Your task to perform on an android device: Go to ESPN.com Image 0: 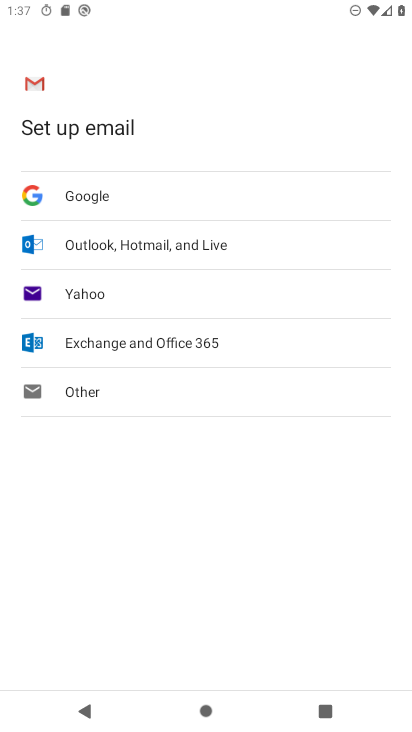
Step 0: press home button
Your task to perform on an android device: Go to ESPN.com Image 1: 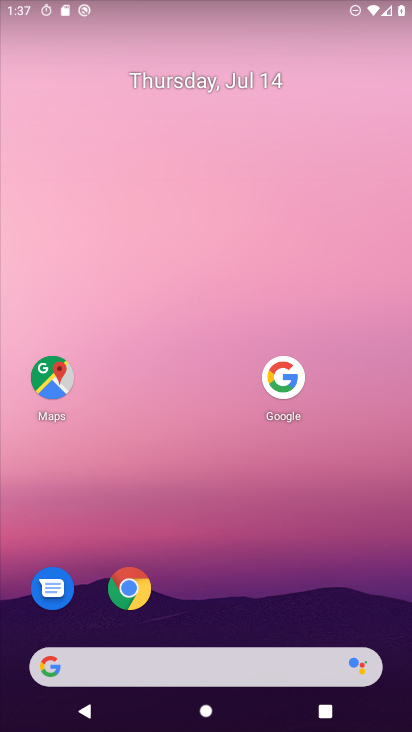
Step 1: click (127, 578)
Your task to perform on an android device: Go to ESPN.com Image 2: 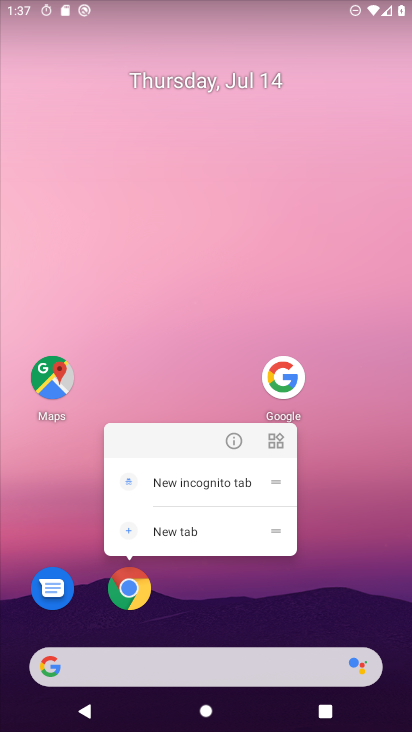
Step 2: click (127, 579)
Your task to perform on an android device: Go to ESPN.com Image 3: 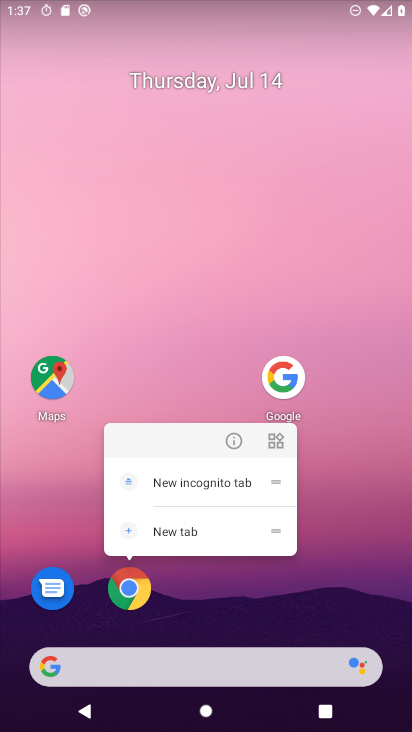
Step 3: click (130, 591)
Your task to perform on an android device: Go to ESPN.com Image 4: 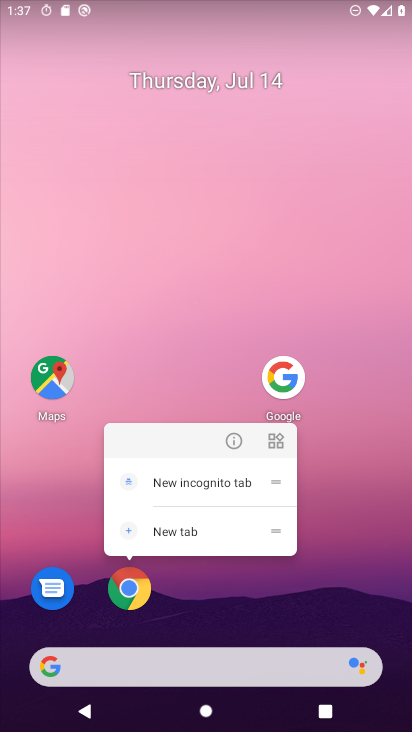
Step 4: click (131, 584)
Your task to perform on an android device: Go to ESPN.com Image 5: 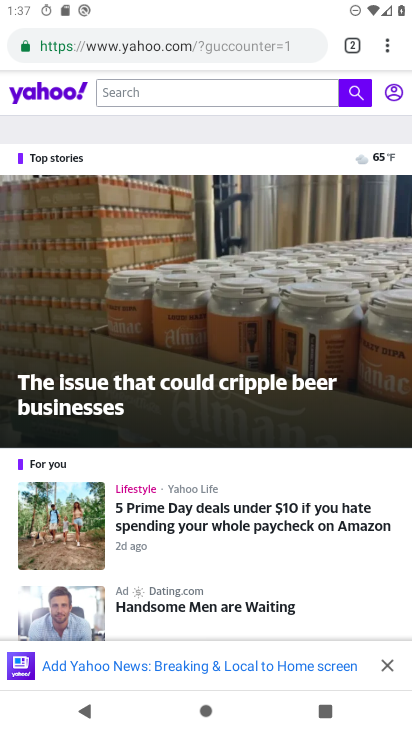
Step 5: drag from (386, 47) to (286, 143)
Your task to perform on an android device: Go to ESPN.com Image 6: 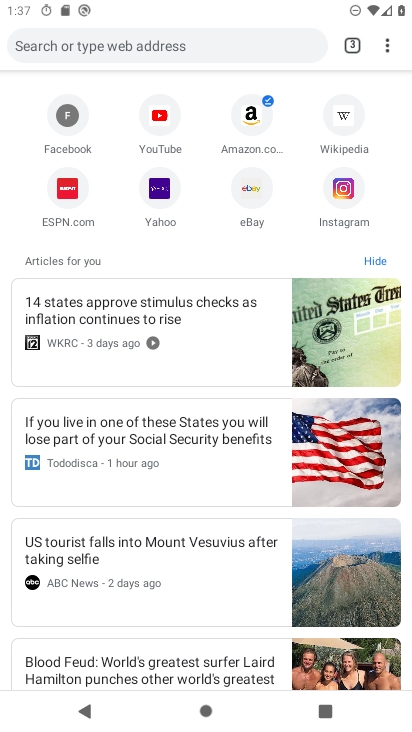
Step 6: click (73, 190)
Your task to perform on an android device: Go to ESPN.com Image 7: 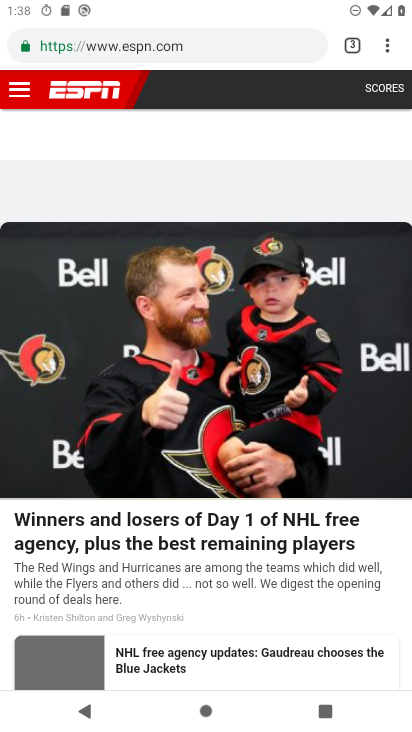
Step 7: task complete